Your task to perform on an android device: Add "acer predator" to the cart on ebay, then select checkout. Image 0: 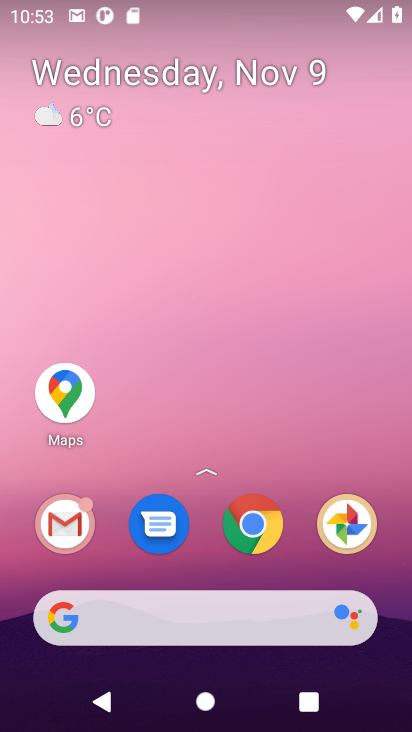
Step 0: click (255, 525)
Your task to perform on an android device: Add "acer predator" to the cart on ebay, then select checkout. Image 1: 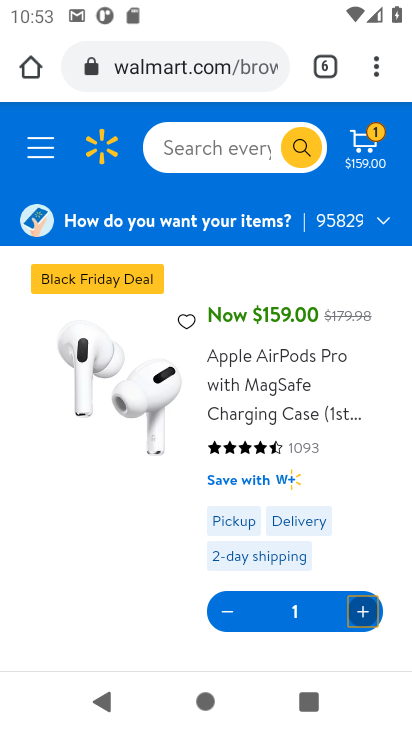
Step 1: click (326, 63)
Your task to perform on an android device: Add "acer predator" to the cart on ebay, then select checkout. Image 2: 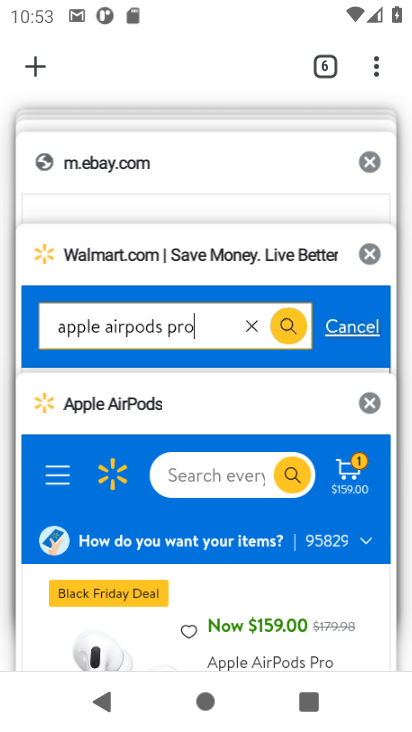
Step 2: click (259, 176)
Your task to perform on an android device: Add "acer predator" to the cart on ebay, then select checkout. Image 3: 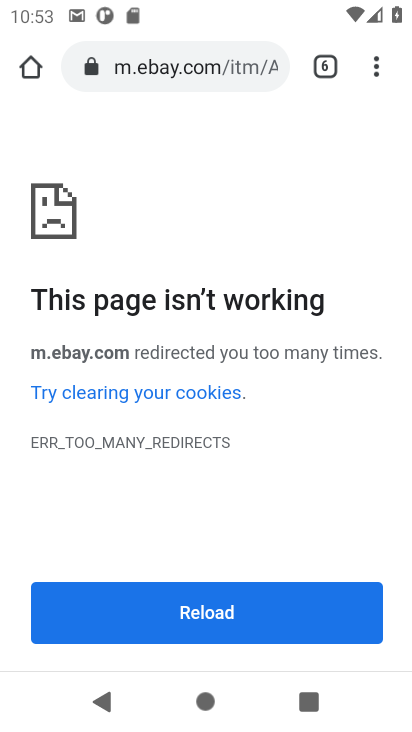
Step 3: click (318, 75)
Your task to perform on an android device: Add "acer predator" to the cart on ebay, then select checkout. Image 4: 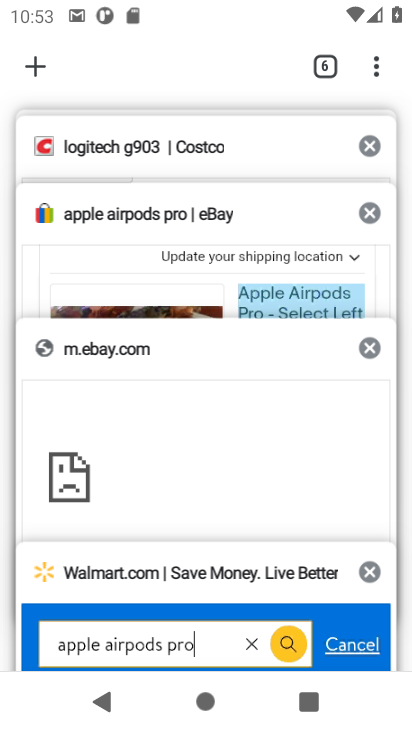
Step 4: click (123, 360)
Your task to perform on an android device: Add "acer predator" to the cart on ebay, then select checkout. Image 5: 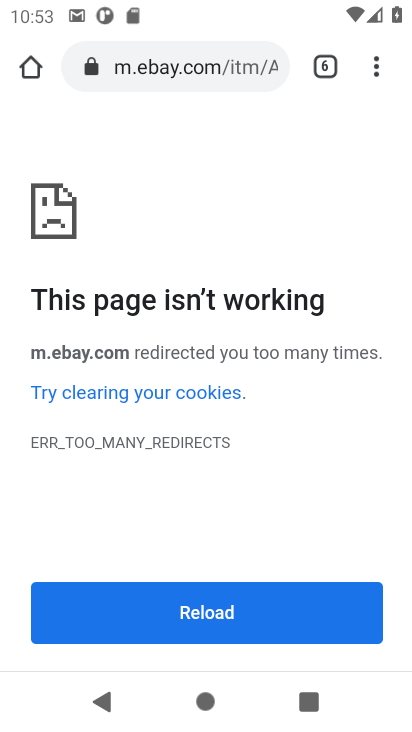
Step 5: click (175, 70)
Your task to perform on an android device: Add "acer predator" to the cart on ebay, then select checkout. Image 6: 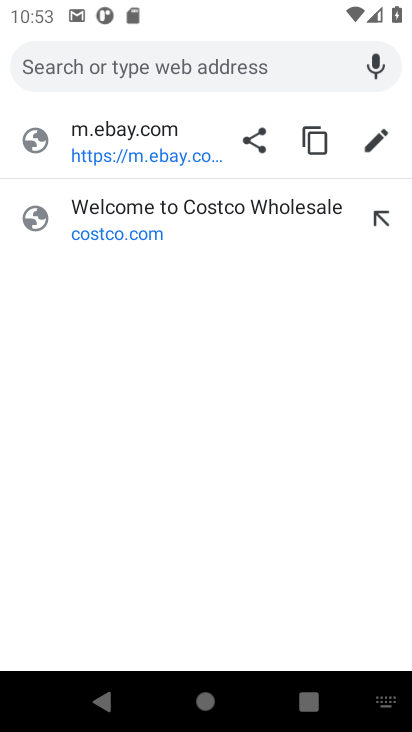
Step 6: click (202, 66)
Your task to perform on an android device: Add "acer predator" to the cart on ebay, then select checkout. Image 7: 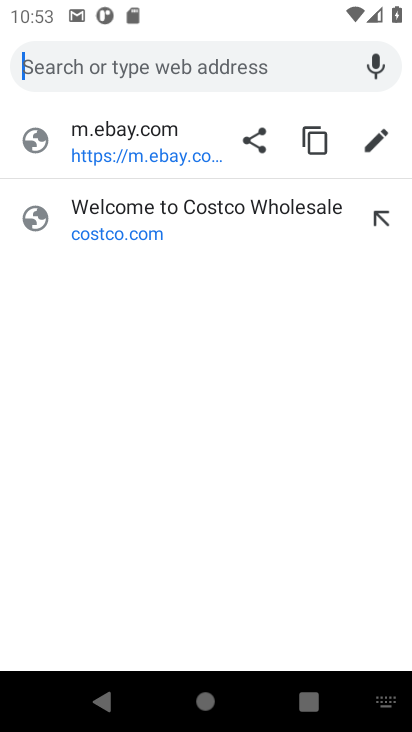
Step 7: type "ebay"
Your task to perform on an android device: Add "acer predator" to the cart on ebay, then select checkout. Image 8: 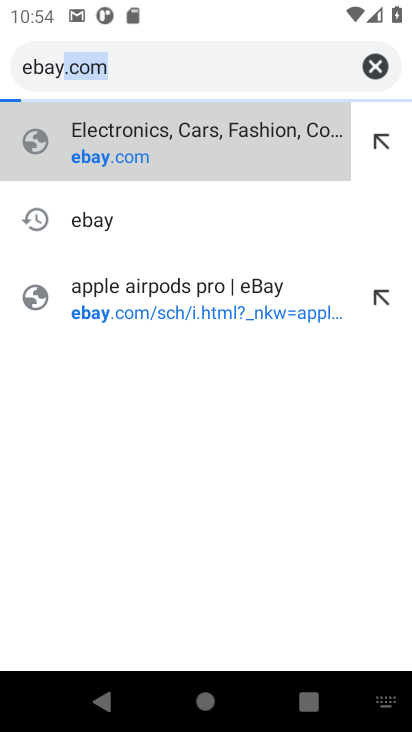
Step 8: click (295, 160)
Your task to perform on an android device: Add "acer predator" to the cart on ebay, then select checkout. Image 9: 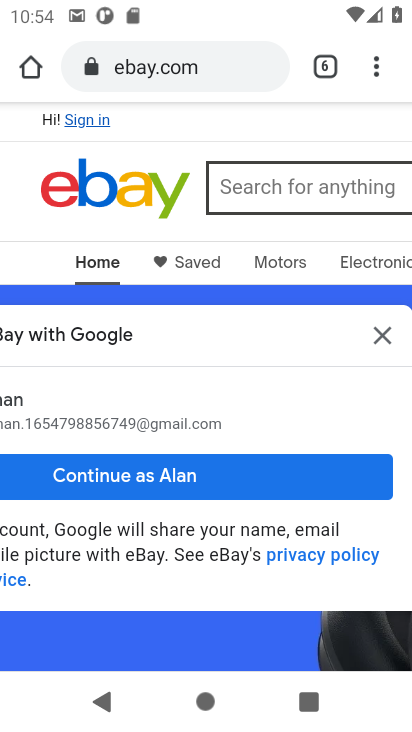
Step 9: click (143, 493)
Your task to perform on an android device: Add "acer predator" to the cart on ebay, then select checkout. Image 10: 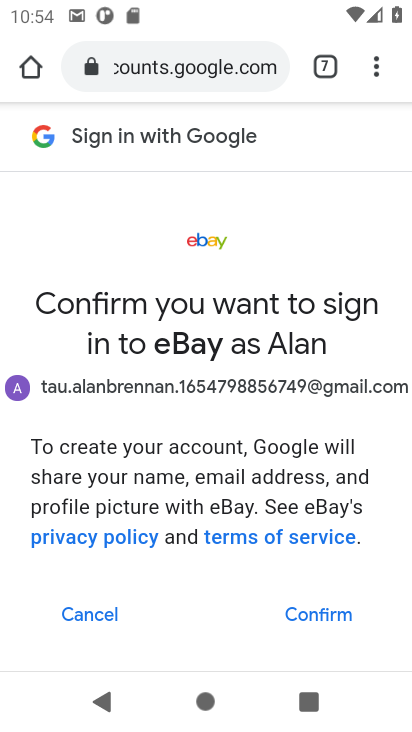
Step 10: click (312, 610)
Your task to perform on an android device: Add "acer predator" to the cart on ebay, then select checkout. Image 11: 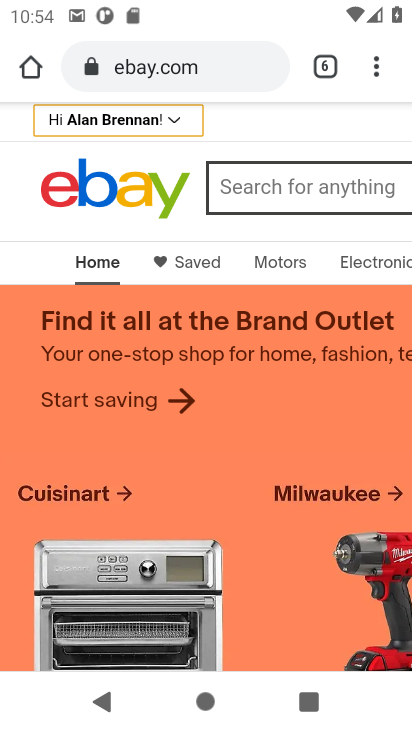
Step 11: click (278, 193)
Your task to perform on an android device: Add "acer predator" to the cart on ebay, then select checkout. Image 12: 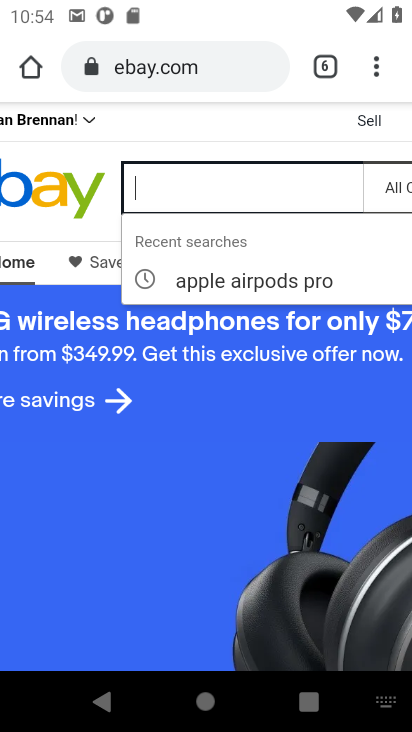
Step 12: type "acer predator"
Your task to perform on an android device: Add "acer predator" to the cart on ebay, then select checkout. Image 13: 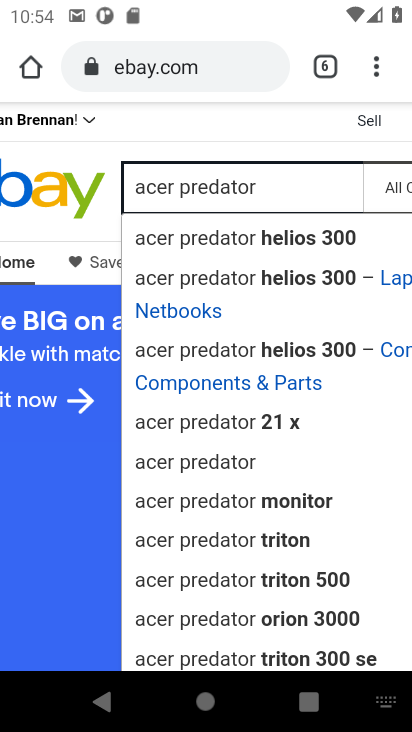
Step 13: click (191, 455)
Your task to perform on an android device: Add "acer predator" to the cart on ebay, then select checkout. Image 14: 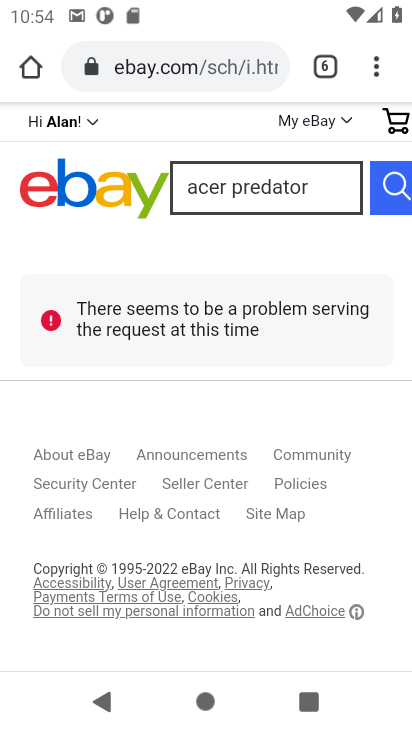
Step 14: task complete